Your task to perform on an android device: Go to display settings Image 0: 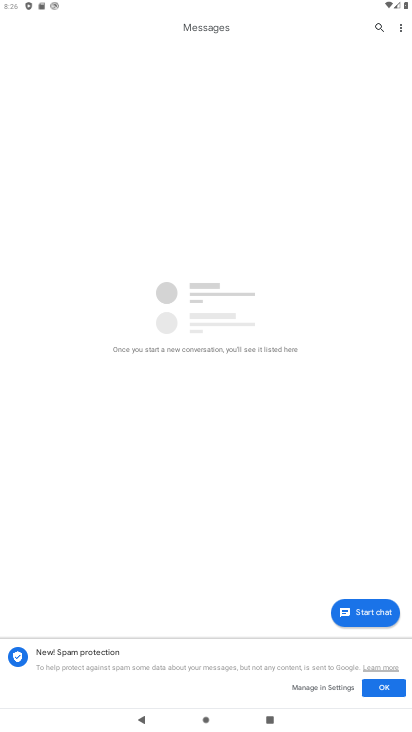
Step 0: press home button
Your task to perform on an android device: Go to display settings Image 1: 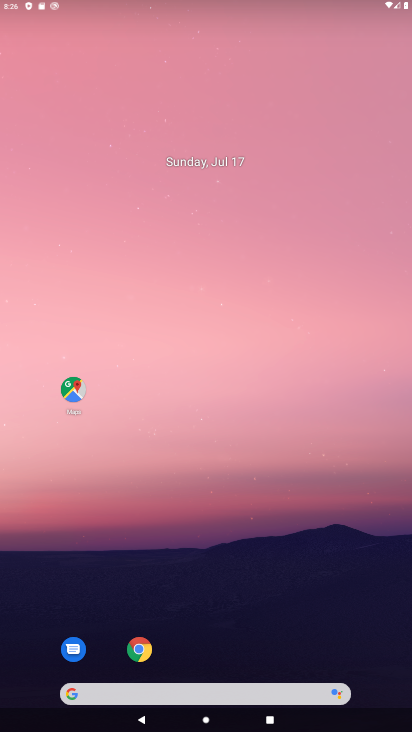
Step 1: drag from (251, 666) to (270, 153)
Your task to perform on an android device: Go to display settings Image 2: 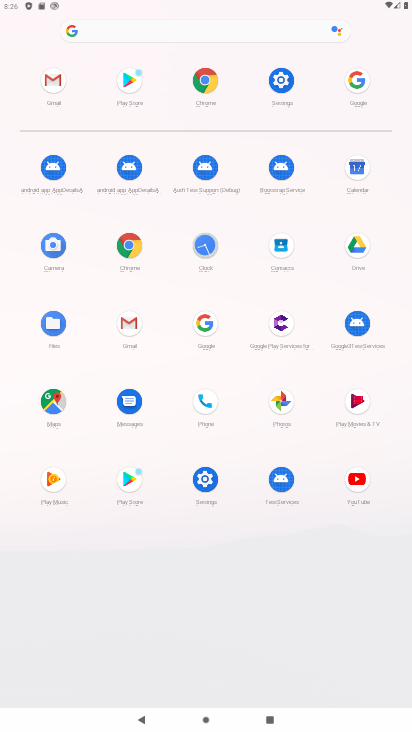
Step 2: click (274, 88)
Your task to perform on an android device: Go to display settings Image 3: 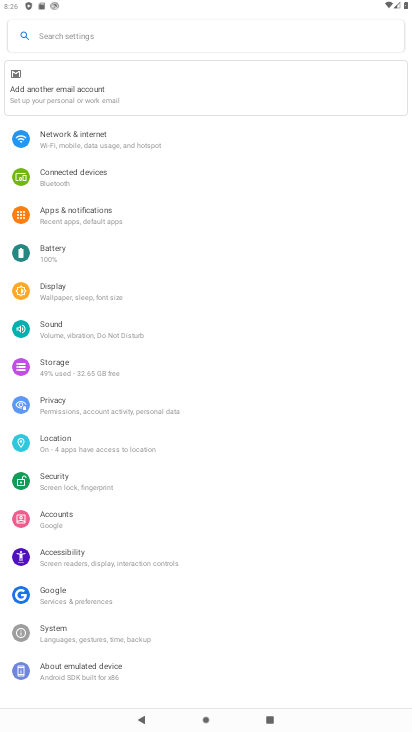
Step 3: click (66, 286)
Your task to perform on an android device: Go to display settings Image 4: 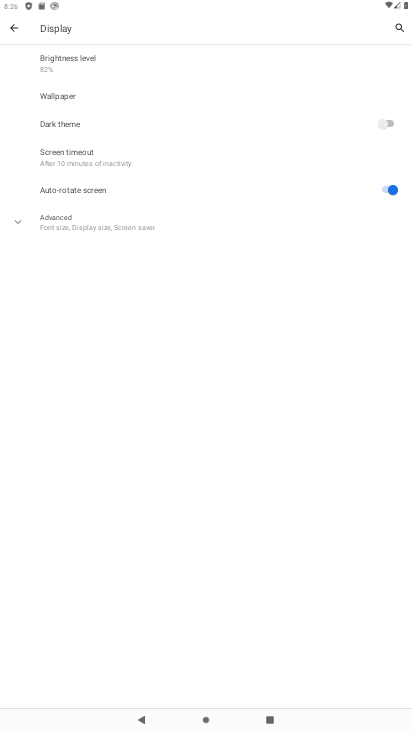
Step 4: task complete